Your task to perform on an android device: open a new tab in the chrome app Image 0: 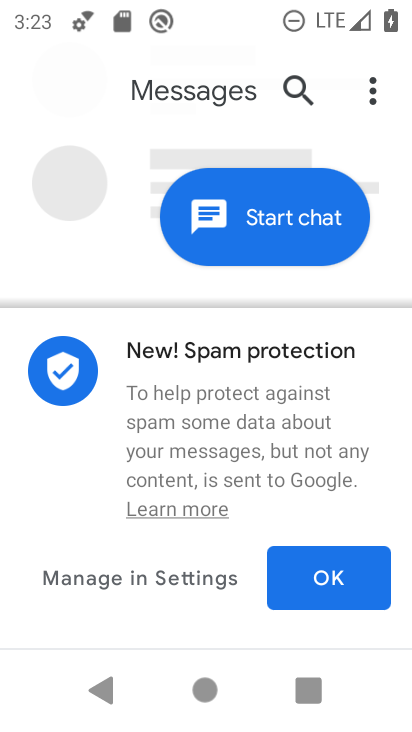
Step 0: press home button
Your task to perform on an android device: open a new tab in the chrome app Image 1: 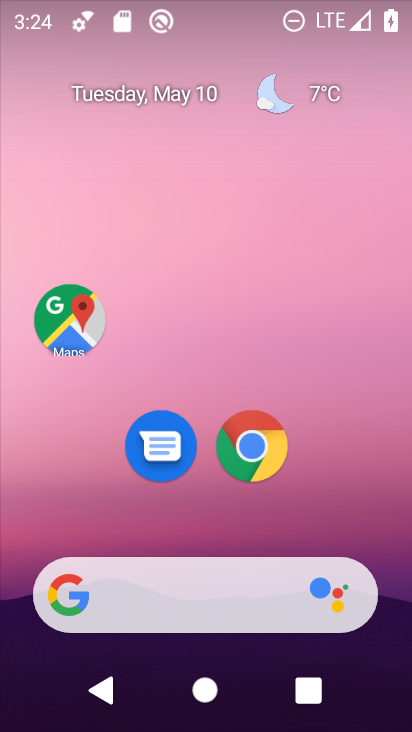
Step 1: click (261, 454)
Your task to perform on an android device: open a new tab in the chrome app Image 2: 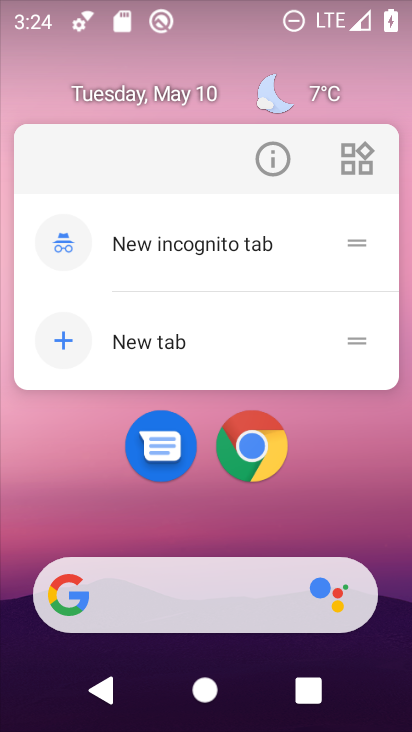
Step 2: click (256, 468)
Your task to perform on an android device: open a new tab in the chrome app Image 3: 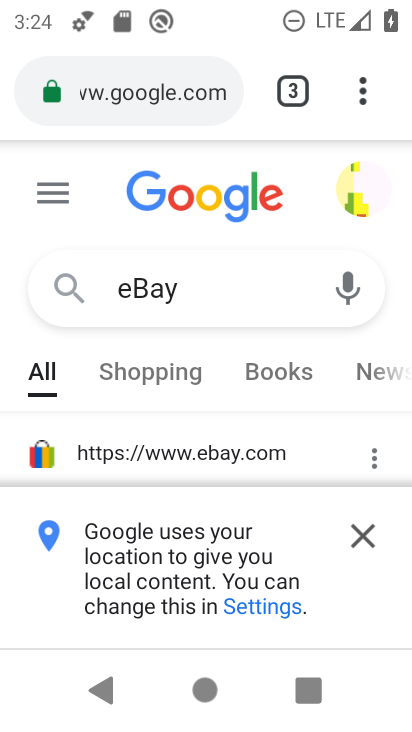
Step 3: click (359, 85)
Your task to perform on an android device: open a new tab in the chrome app Image 4: 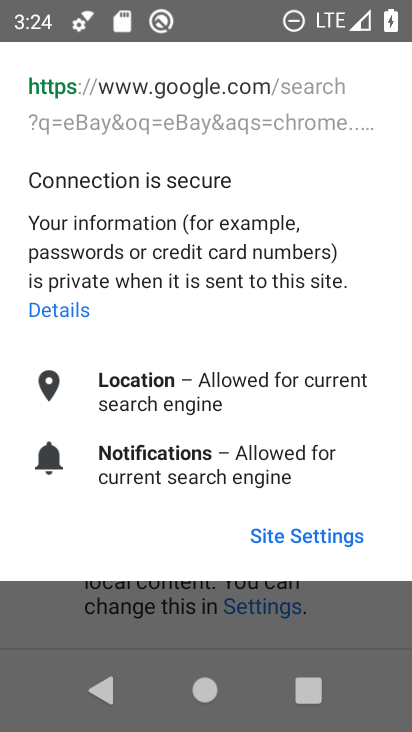
Step 4: click (321, 622)
Your task to perform on an android device: open a new tab in the chrome app Image 5: 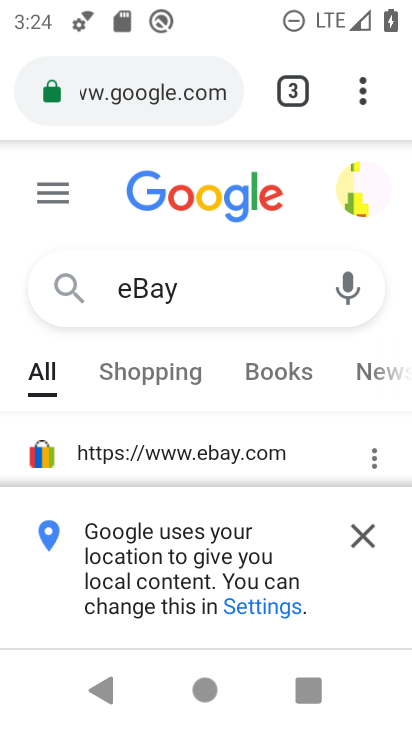
Step 5: click (361, 80)
Your task to perform on an android device: open a new tab in the chrome app Image 6: 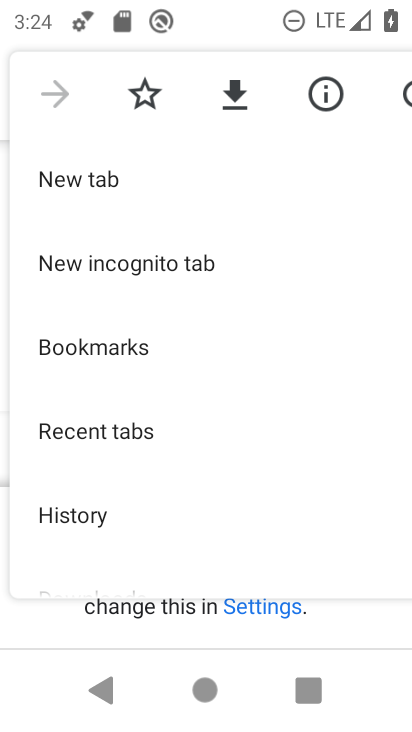
Step 6: click (103, 179)
Your task to perform on an android device: open a new tab in the chrome app Image 7: 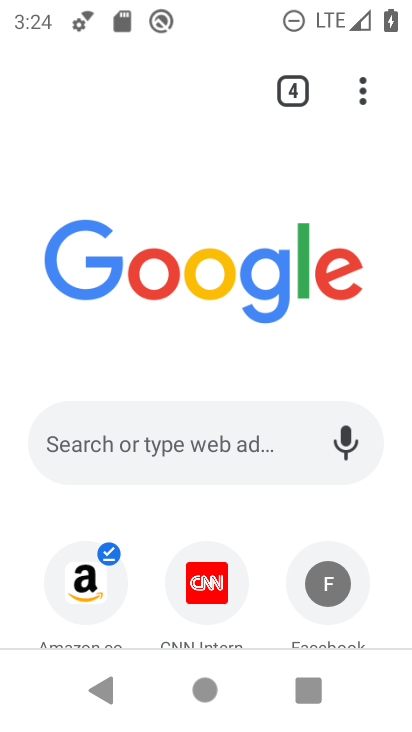
Step 7: task complete